Your task to perform on an android device: change the upload size in google photos Image 0: 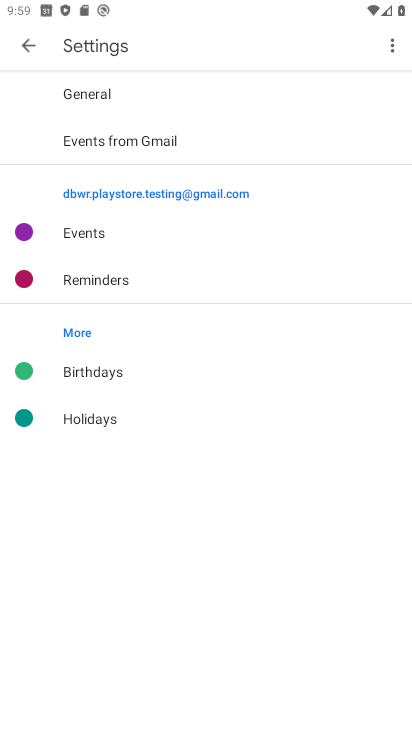
Step 0: press home button
Your task to perform on an android device: change the upload size in google photos Image 1: 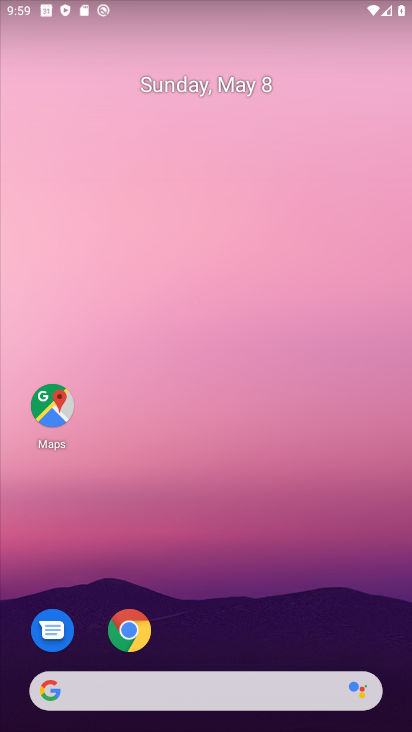
Step 1: drag from (214, 727) to (206, 362)
Your task to perform on an android device: change the upload size in google photos Image 2: 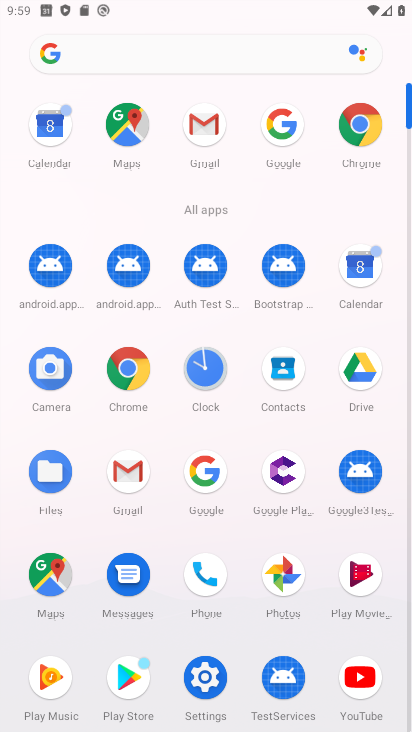
Step 2: click (280, 571)
Your task to perform on an android device: change the upload size in google photos Image 3: 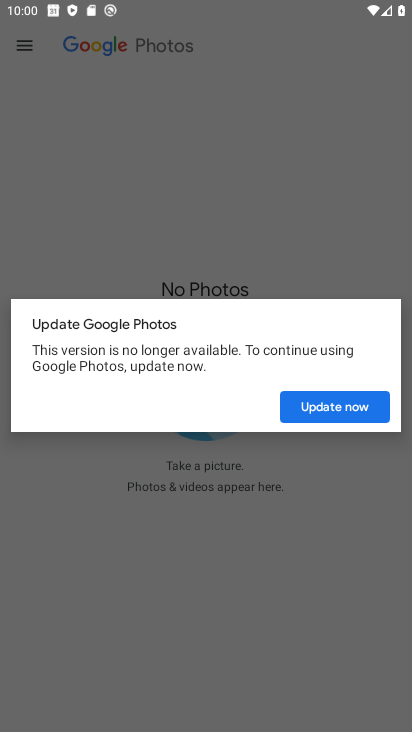
Step 3: task complete